Your task to perform on an android device: What's on my calendar today? Image 0: 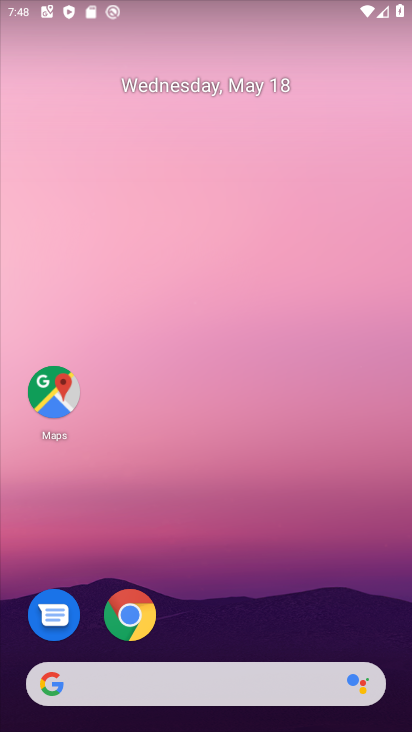
Step 0: drag from (250, 626) to (327, 188)
Your task to perform on an android device: What's on my calendar today? Image 1: 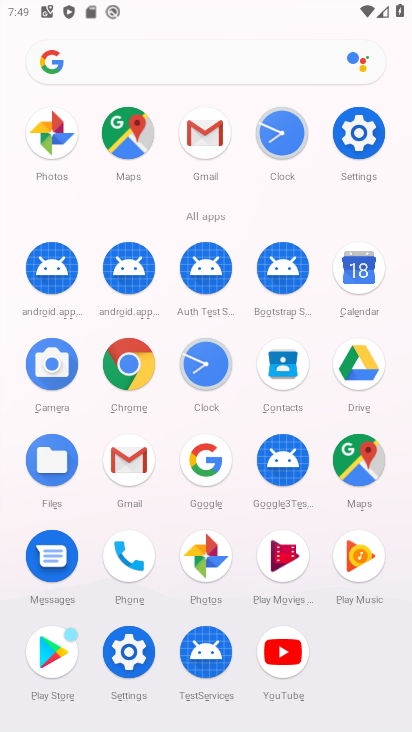
Step 1: click (363, 271)
Your task to perform on an android device: What's on my calendar today? Image 2: 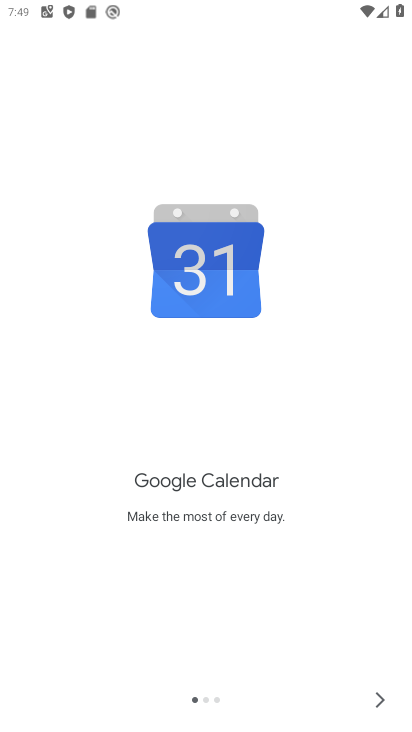
Step 2: click (397, 700)
Your task to perform on an android device: What's on my calendar today? Image 3: 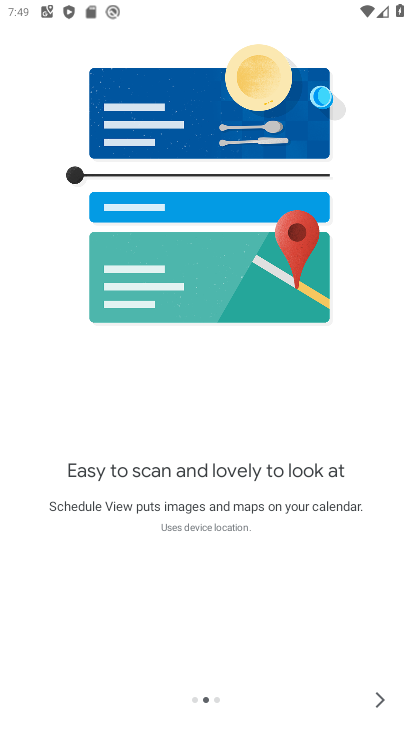
Step 3: click (397, 700)
Your task to perform on an android device: What's on my calendar today? Image 4: 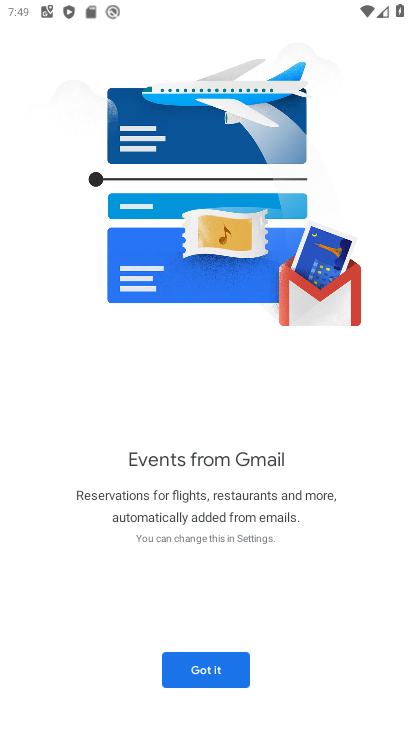
Step 4: click (397, 700)
Your task to perform on an android device: What's on my calendar today? Image 5: 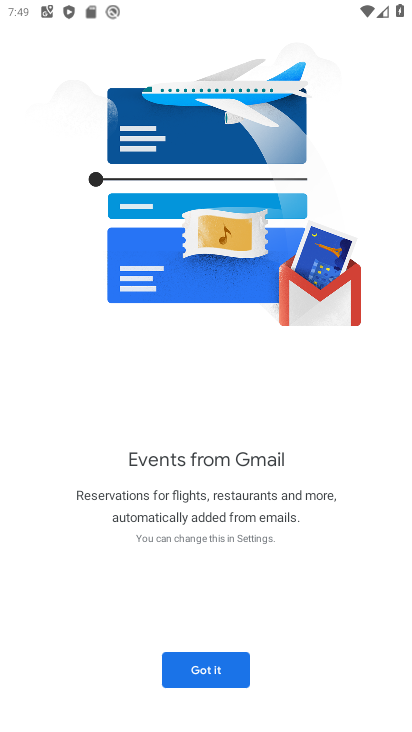
Step 5: click (235, 668)
Your task to perform on an android device: What's on my calendar today? Image 6: 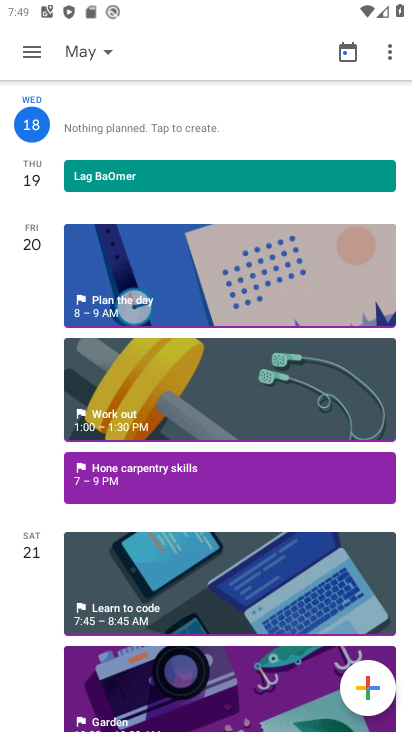
Step 6: task complete